Your task to perform on an android device: check android version Image 0: 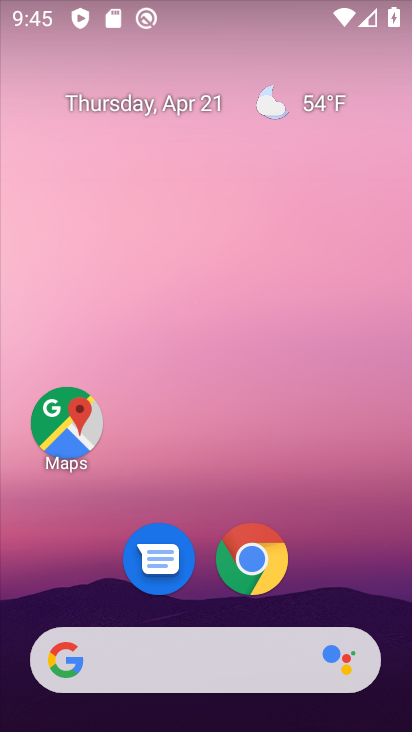
Step 0: drag from (211, 602) to (260, 173)
Your task to perform on an android device: check android version Image 1: 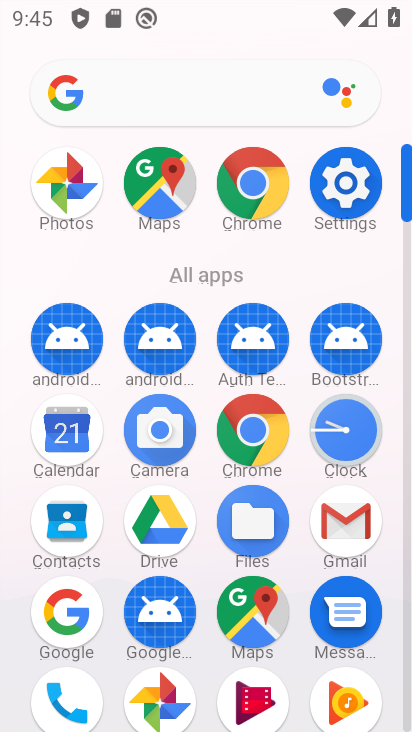
Step 1: click (360, 182)
Your task to perform on an android device: check android version Image 2: 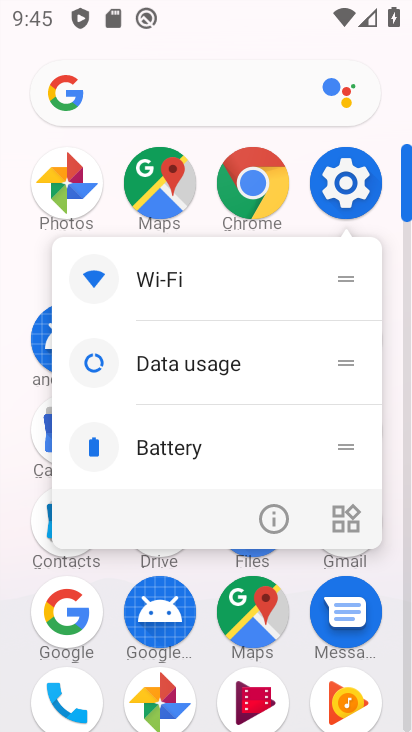
Step 2: click (346, 178)
Your task to perform on an android device: check android version Image 3: 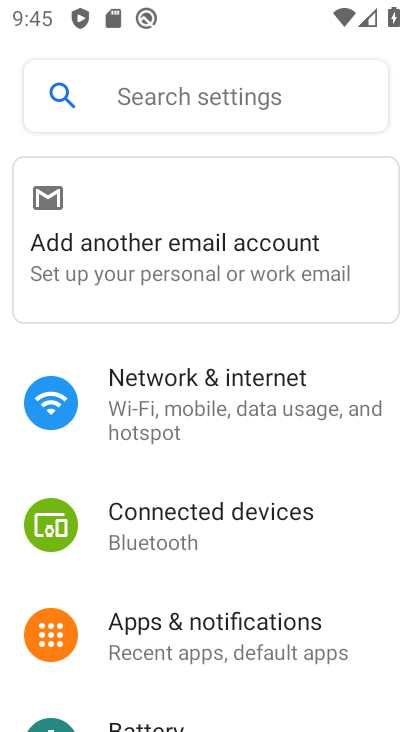
Step 3: drag from (215, 623) to (310, 199)
Your task to perform on an android device: check android version Image 4: 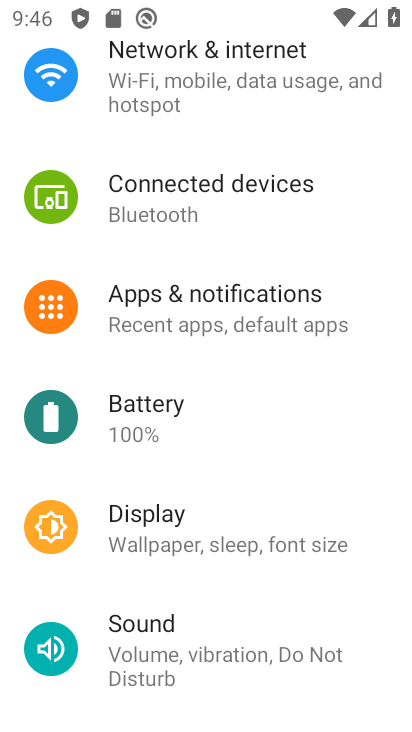
Step 4: drag from (205, 576) to (322, 104)
Your task to perform on an android device: check android version Image 5: 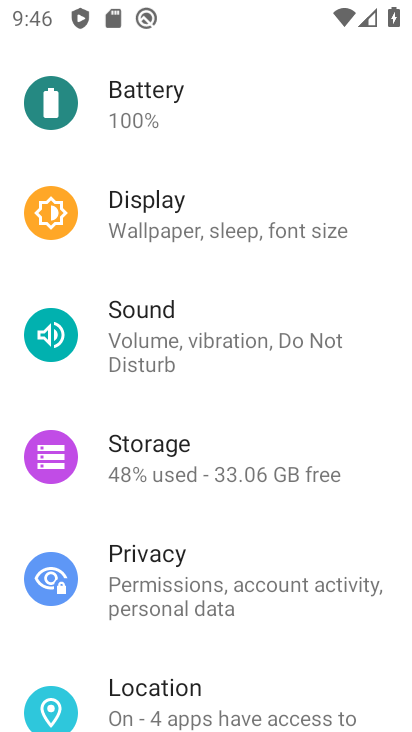
Step 5: drag from (225, 581) to (334, 86)
Your task to perform on an android device: check android version Image 6: 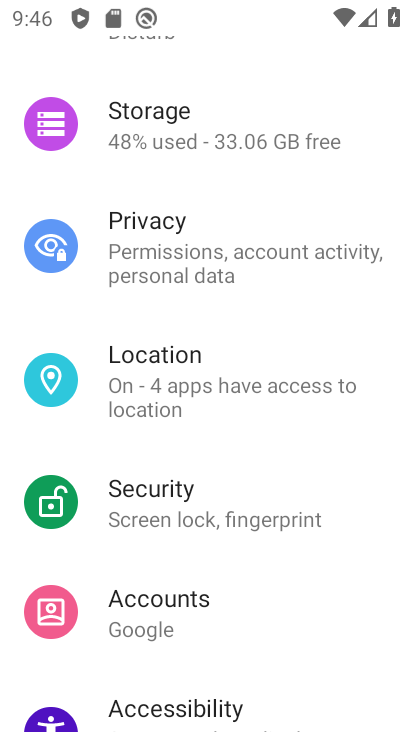
Step 6: drag from (225, 493) to (346, 53)
Your task to perform on an android device: check android version Image 7: 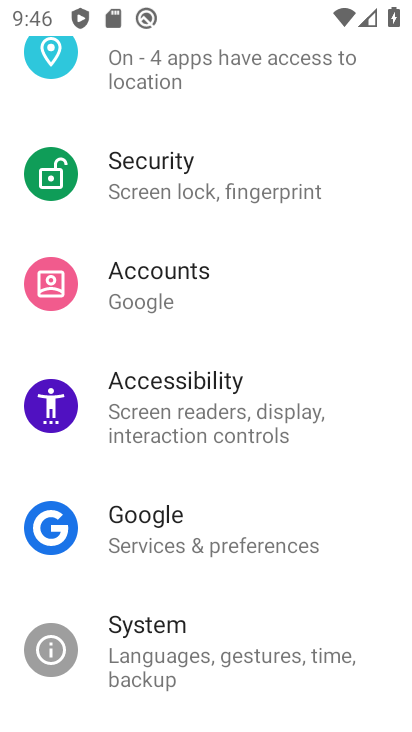
Step 7: drag from (227, 598) to (377, 40)
Your task to perform on an android device: check android version Image 8: 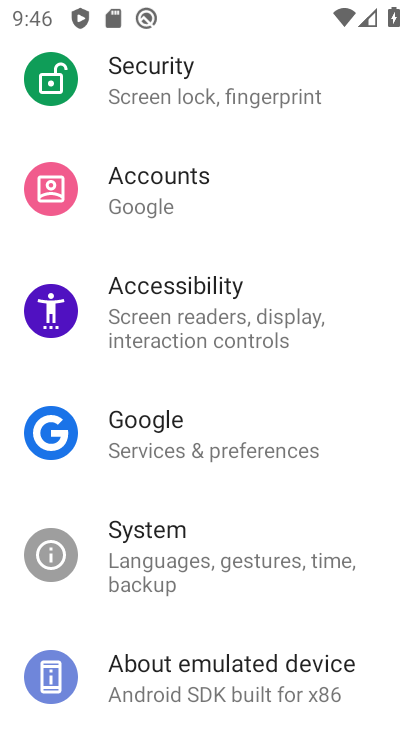
Step 8: click (179, 669)
Your task to perform on an android device: check android version Image 9: 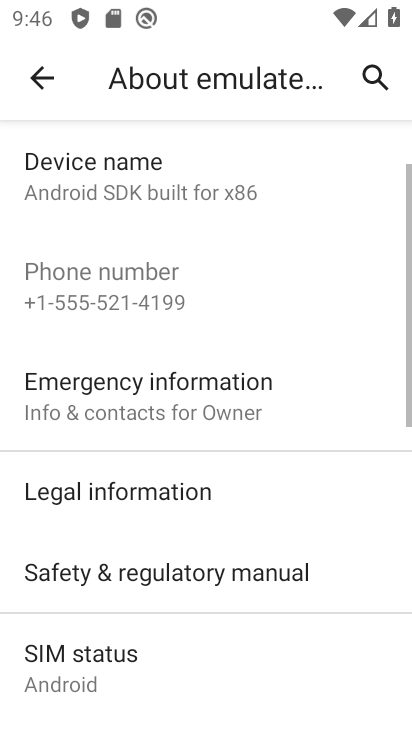
Step 9: drag from (124, 575) to (241, 105)
Your task to perform on an android device: check android version Image 10: 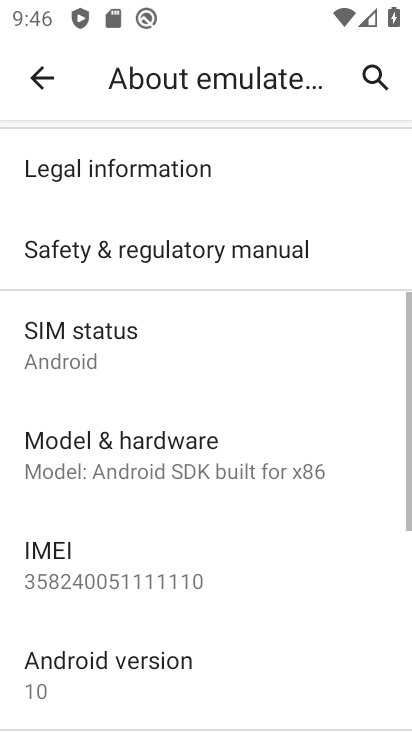
Step 10: drag from (141, 640) to (271, 182)
Your task to perform on an android device: check android version Image 11: 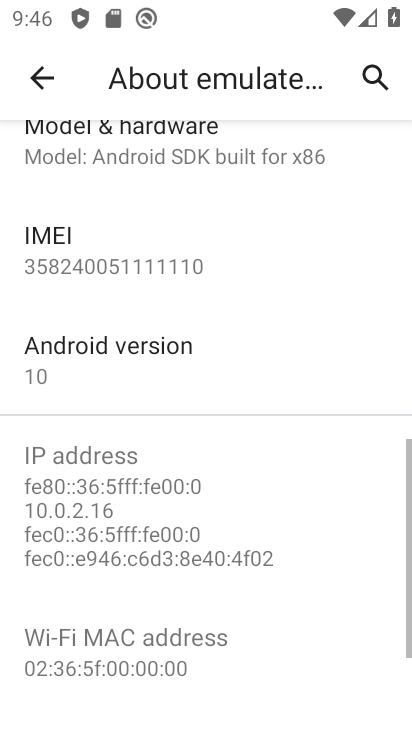
Step 11: click (125, 383)
Your task to perform on an android device: check android version Image 12: 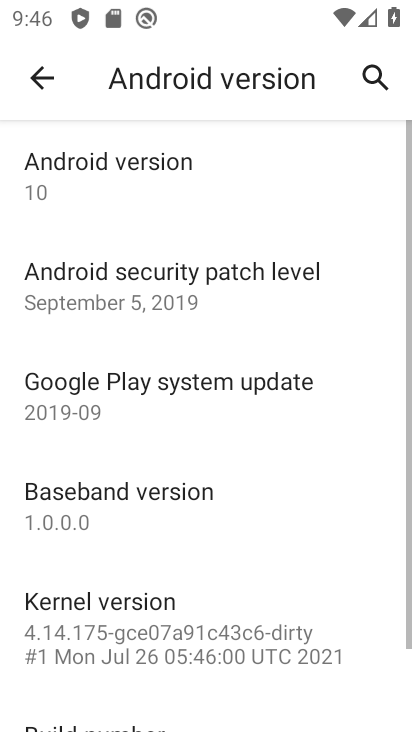
Step 12: task complete